Your task to perform on an android device: see tabs open on other devices in the chrome app Image 0: 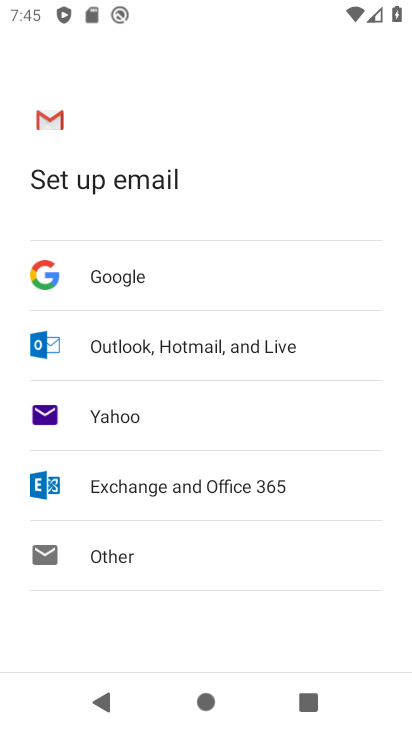
Step 0: press home button
Your task to perform on an android device: see tabs open on other devices in the chrome app Image 1: 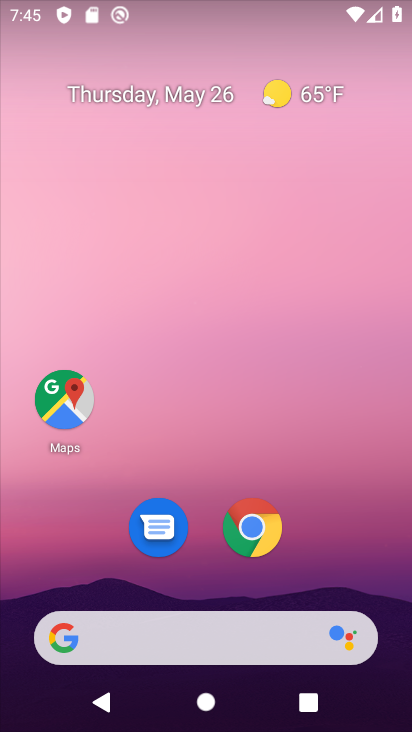
Step 1: drag from (365, 632) to (316, 149)
Your task to perform on an android device: see tabs open on other devices in the chrome app Image 2: 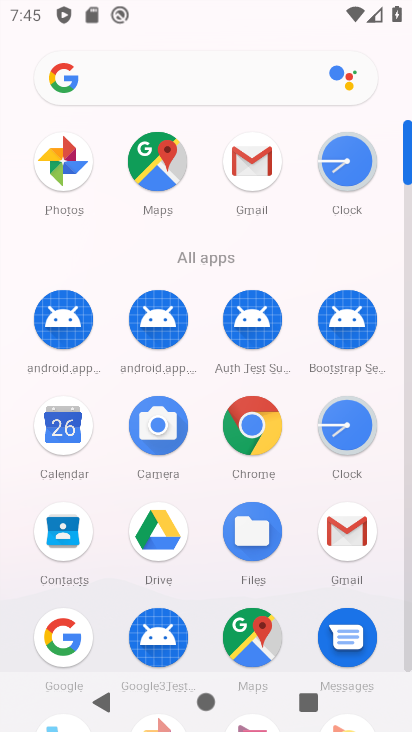
Step 2: click (254, 437)
Your task to perform on an android device: see tabs open on other devices in the chrome app Image 3: 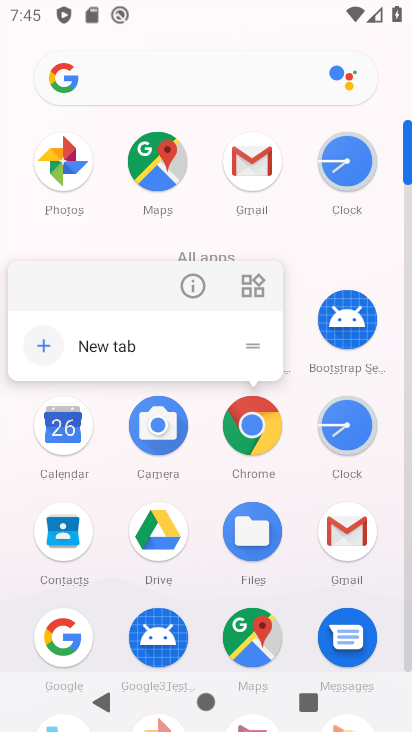
Step 3: click (252, 439)
Your task to perform on an android device: see tabs open on other devices in the chrome app Image 4: 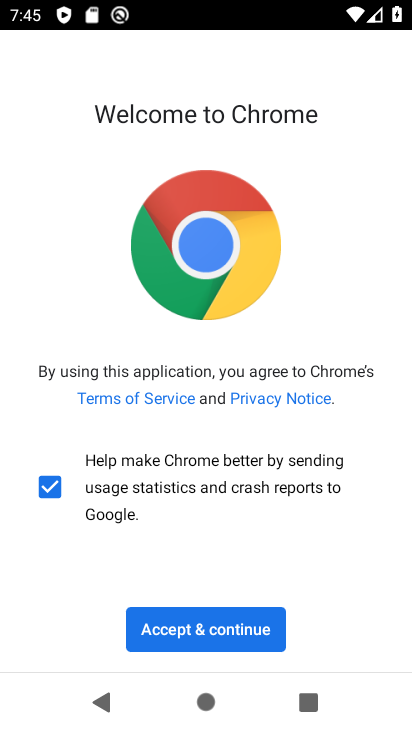
Step 4: click (241, 625)
Your task to perform on an android device: see tabs open on other devices in the chrome app Image 5: 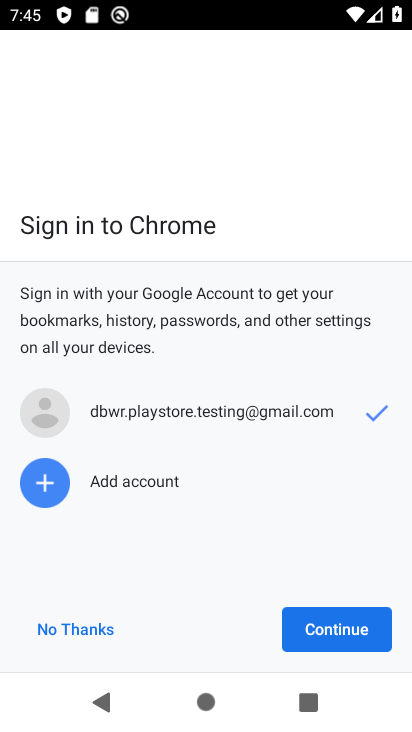
Step 5: click (114, 646)
Your task to perform on an android device: see tabs open on other devices in the chrome app Image 6: 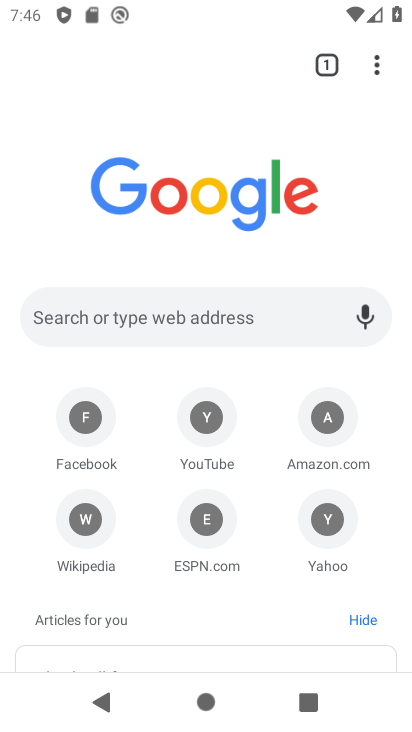
Step 6: drag from (361, 87) to (157, 304)
Your task to perform on an android device: see tabs open on other devices in the chrome app Image 7: 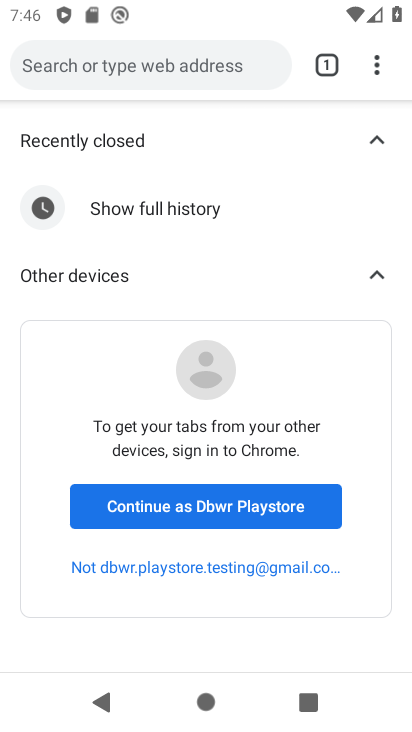
Step 7: click (192, 493)
Your task to perform on an android device: see tabs open on other devices in the chrome app Image 8: 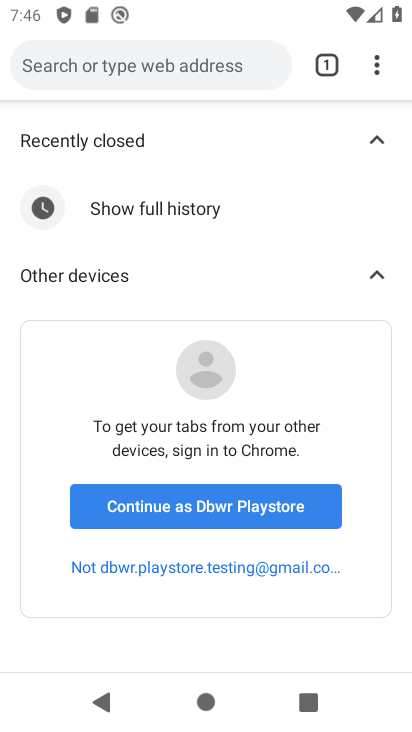
Step 8: click (188, 501)
Your task to perform on an android device: see tabs open on other devices in the chrome app Image 9: 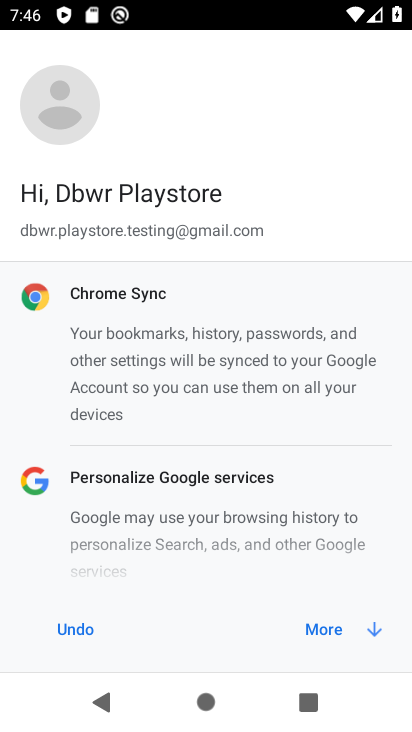
Step 9: click (313, 626)
Your task to perform on an android device: see tabs open on other devices in the chrome app Image 10: 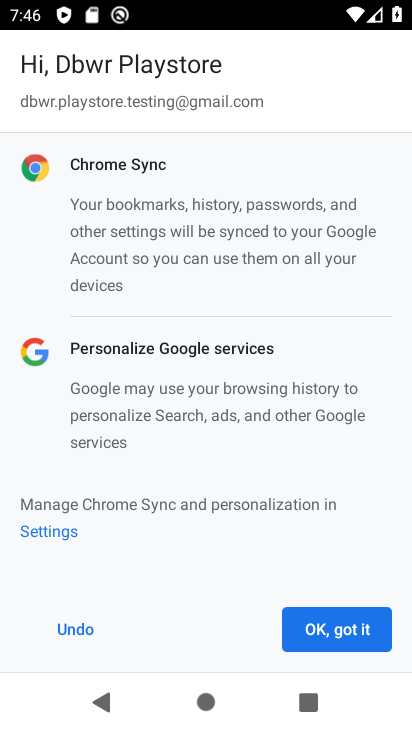
Step 10: click (325, 639)
Your task to perform on an android device: see tabs open on other devices in the chrome app Image 11: 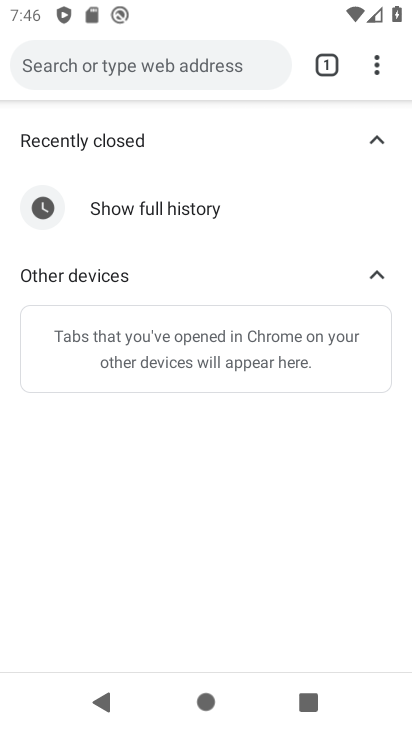
Step 11: task complete